Your task to perform on an android device: Open Youtube and go to the subscriptions tab Image 0: 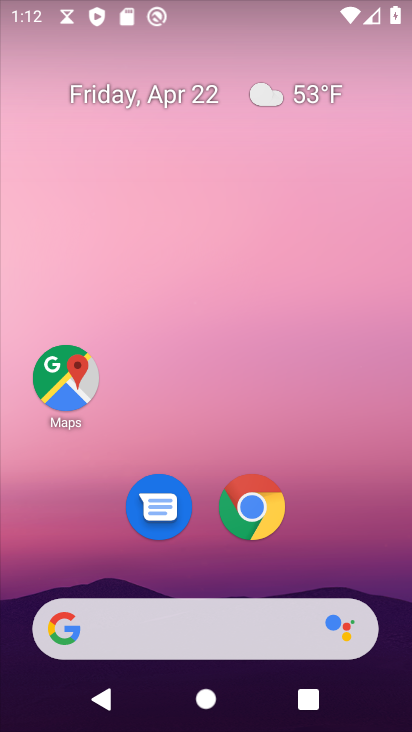
Step 0: drag from (308, 457) to (265, 74)
Your task to perform on an android device: Open Youtube and go to the subscriptions tab Image 1: 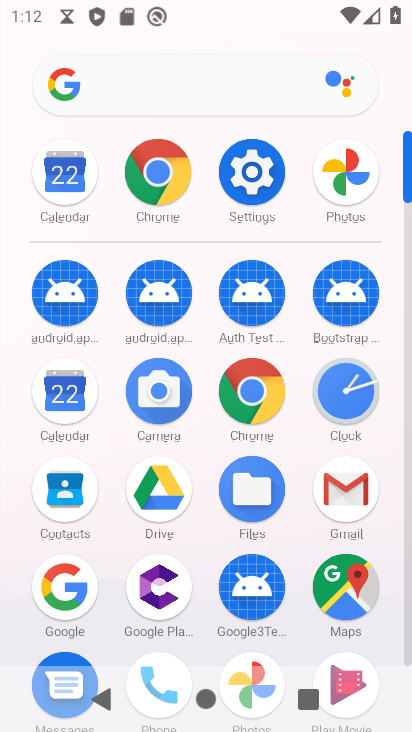
Step 1: drag from (298, 606) to (309, 215)
Your task to perform on an android device: Open Youtube and go to the subscriptions tab Image 2: 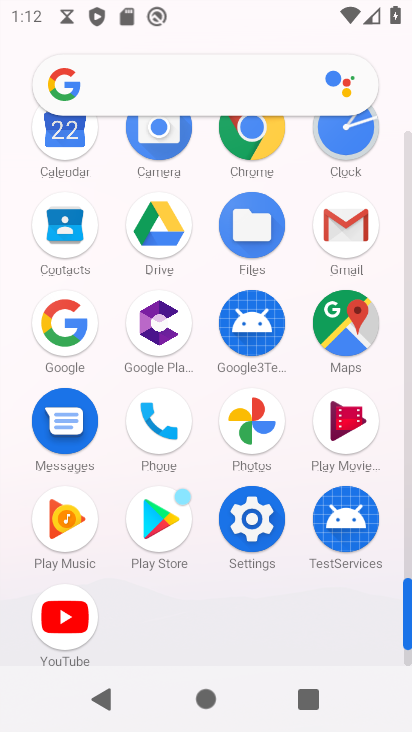
Step 2: click (64, 616)
Your task to perform on an android device: Open Youtube and go to the subscriptions tab Image 3: 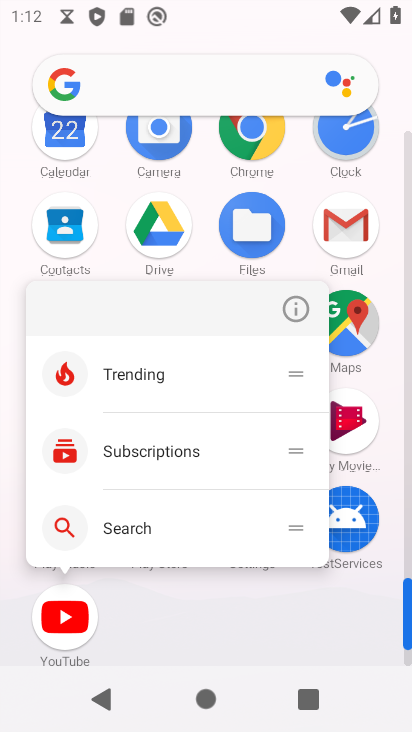
Step 3: click (64, 614)
Your task to perform on an android device: Open Youtube and go to the subscriptions tab Image 4: 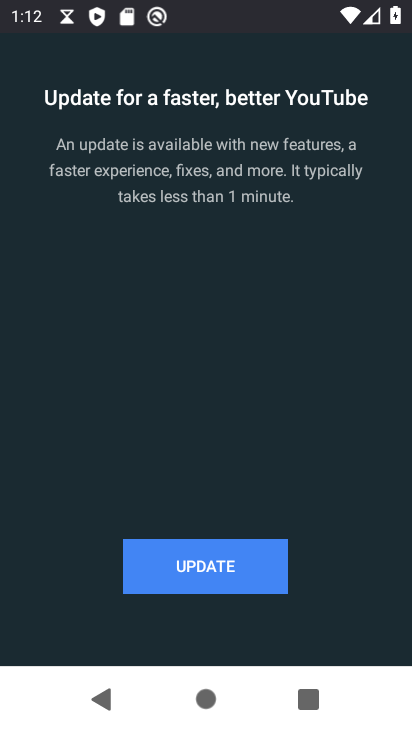
Step 4: click (213, 574)
Your task to perform on an android device: Open Youtube and go to the subscriptions tab Image 5: 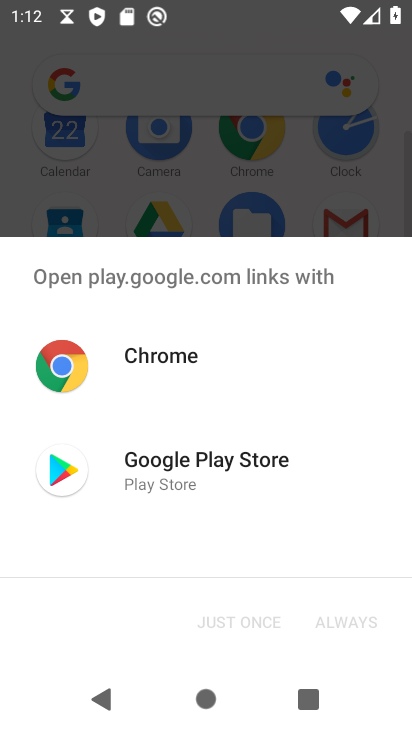
Step 5: click (199, 457)
Your task to perform on an android device: Open Youtube and go to the subscriptions tab Image 6: 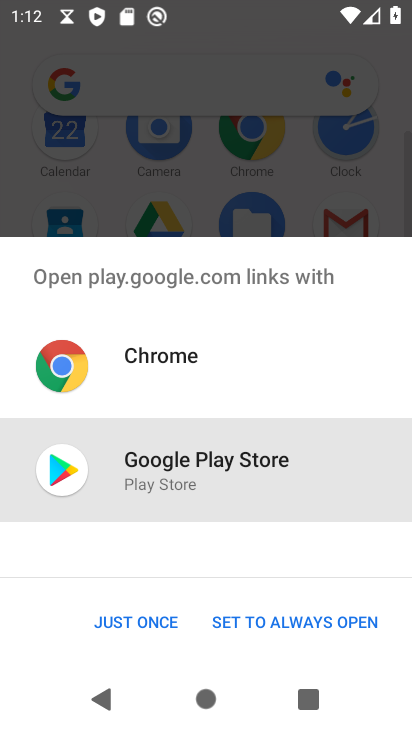
Step 6: click (141, 625)
Your task to perform on an android device: Open Youtube and go to the subscriptions tab Image 7: 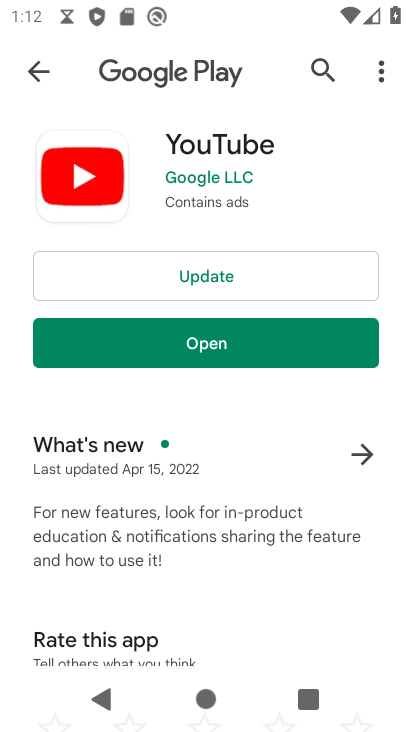
Step 7: click (196, 267)
Your task to perform on an android device: Open Youtube and go to the subscriptions tab Image 8: 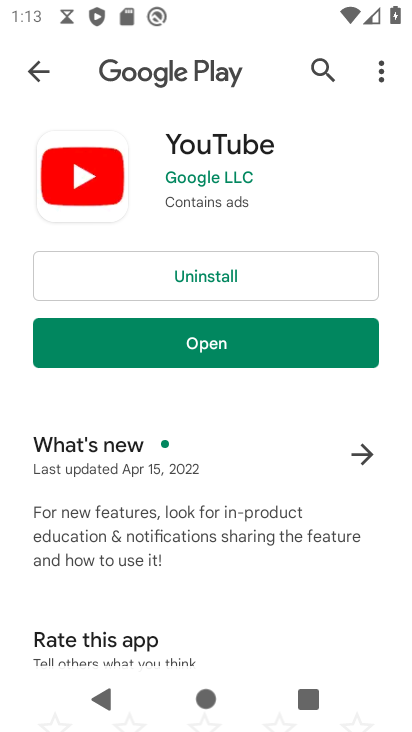
Step 8: click (189, 346)
Your task to perform on an android device: Open Youtube and go to the subscriptions tab Image 9: 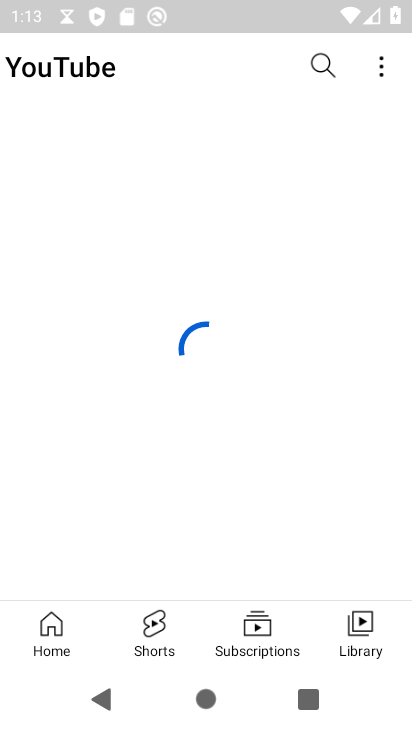
Step 9: click (255, 627)
Your task to perform on an android device: Open Youtube and go to the subscriptions tab Image 10: 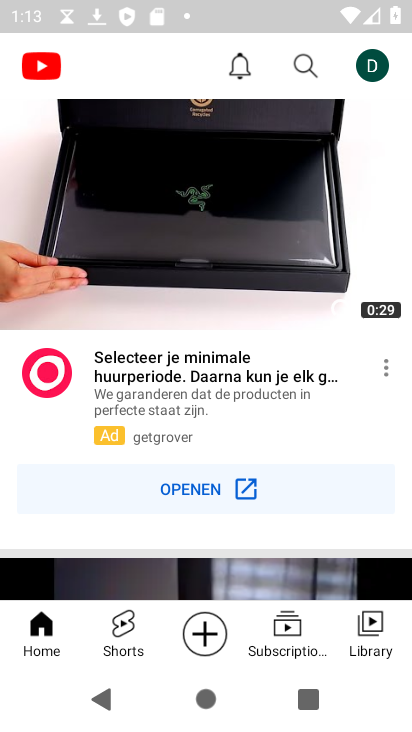
Step 10: click (287, 629)
Your task to perform on an android device: Open Youtube and go to the subscriptions tab Image 11: 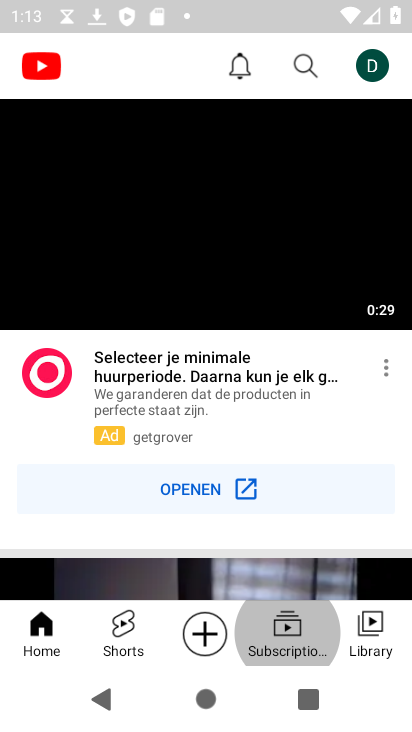
Step 11: click (287, 629)
Your task to perform on an android device: Open Youtube and go to the subscriptions tab Image 12: 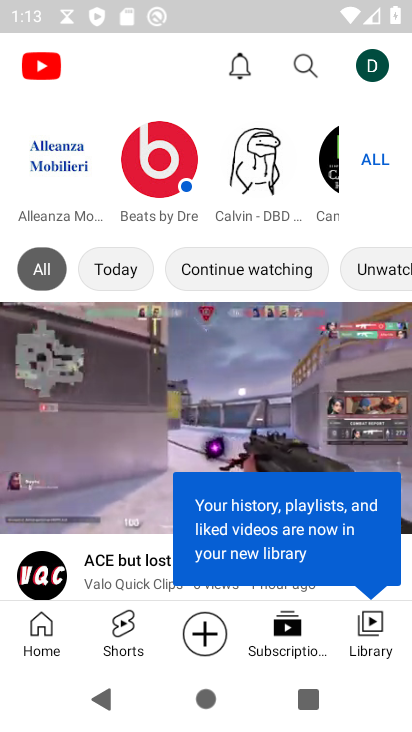
Step 12: task complete